Your task to perform on an android device: open a new tab in the chrome app Image 0: 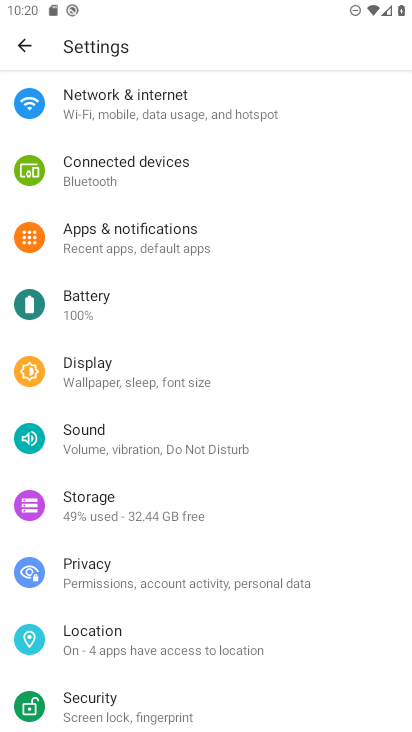
Step 0: press home button
Your task to perform on an android device: open a new tab in the chrome app Image 1: 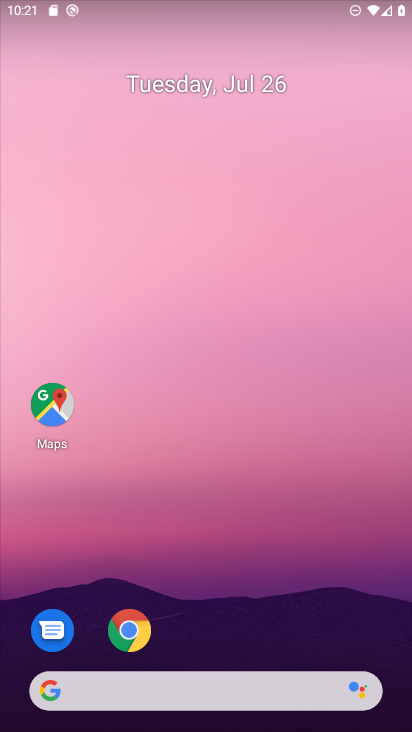
Step 1: click (130, 630)
Your task to perform on an android device: open a new tab in the chrome app Image 2: 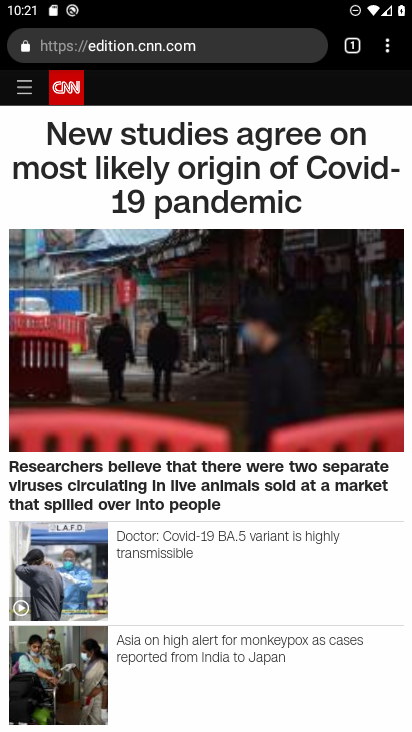
Step 2: click (389, 52)
Your task to perform on an android device: open a new tab in the chrome app Image 3: 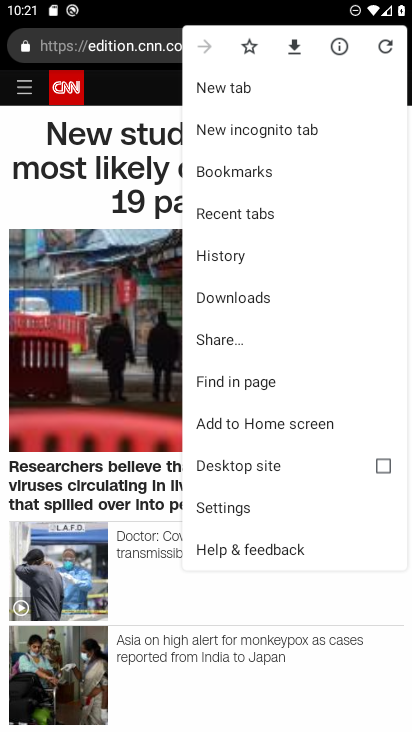
Step 3: click (220, 85)
Your task to perform on an android device: open a new tab in the chrome app Image 4: 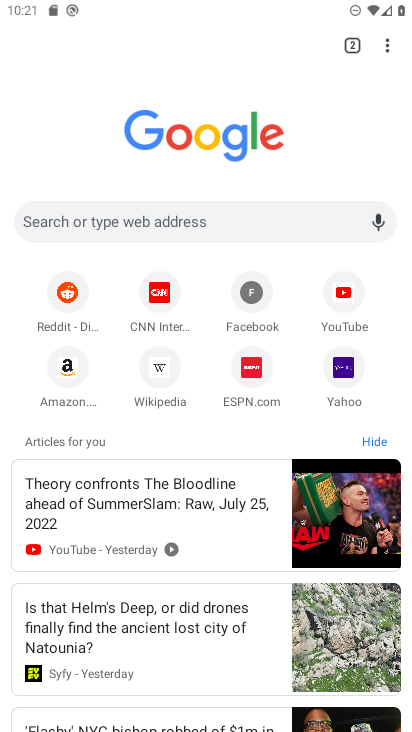
Step 4: task complete